Your task to perform on an android device: Open accessibility settings Image 0: 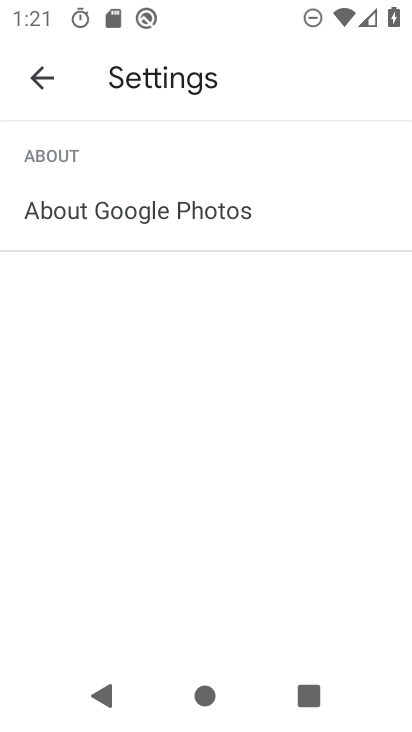
Step 0: press back button
Your task to perform on an android device: Open accessibility settings Image 1: 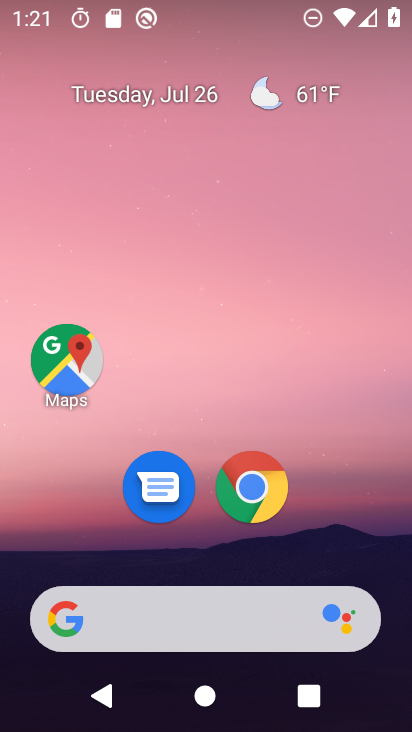
Step 1: drag from (155, 557) to (209, 15)
Your task to perform on an android device: Open accessibility settings Image 2: 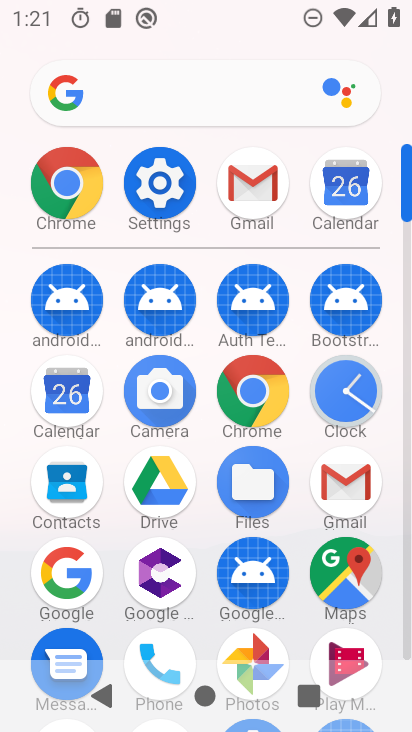
Step 2: click (169, 184)
Your task to perform on an android device: Open accessibility settings Image 3: 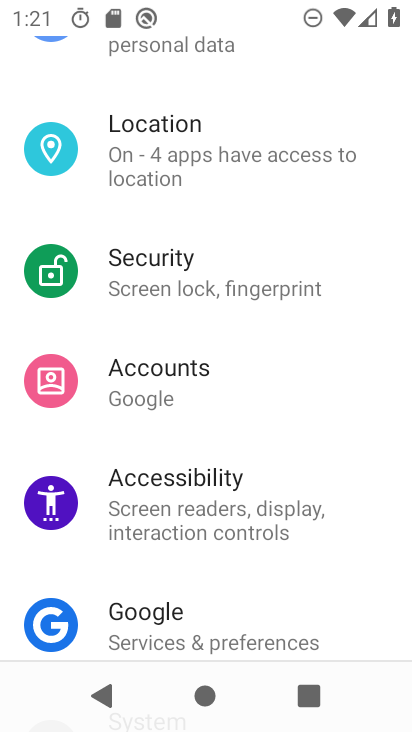
Step 3: click (169, 334)
Your task to perform on an android device: Open accessibility settings Image 4: 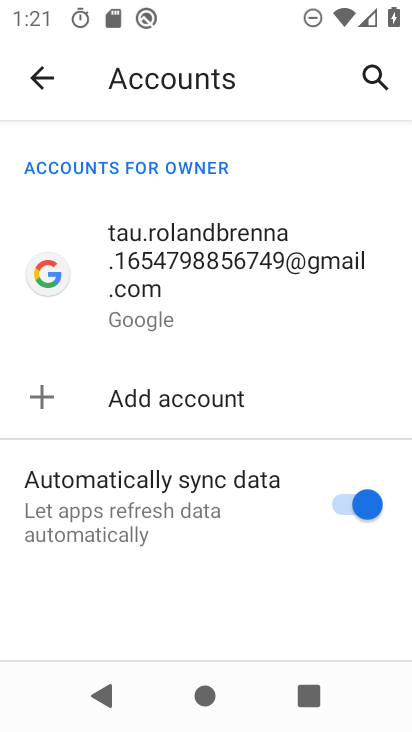
Step 4: click (34, 78)
Your task to perform on an android device: Open accessibility settings Image 5: 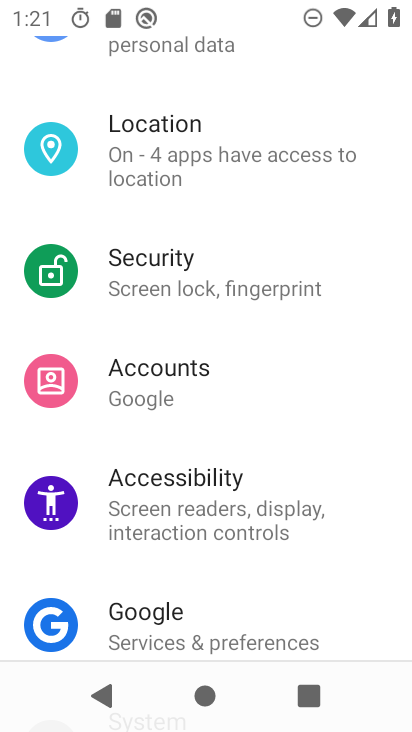
Step 5: click (173, 500)
Your task to perform on an android device: Open accessibility settings Image 6: 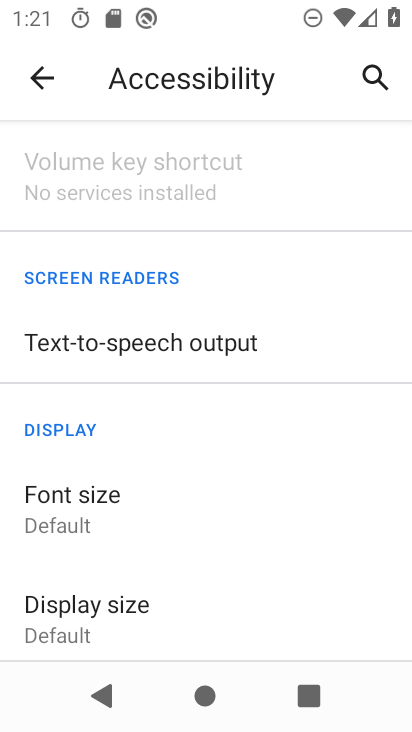
Step 6: task complete